Your task to perform on an android device: empty trash in the gmail app Image 0: 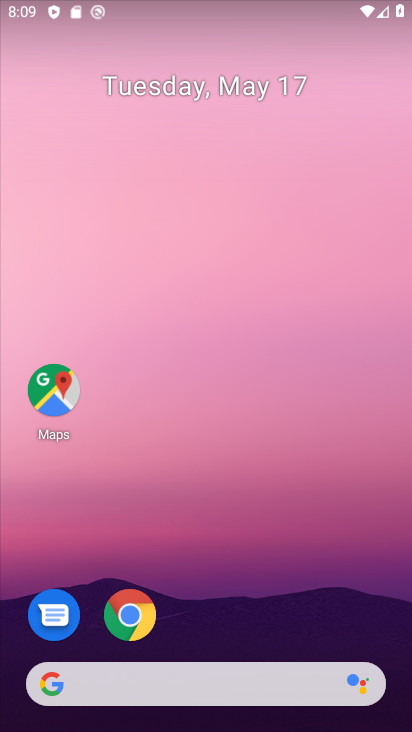
Step 0: drag from (389, 636) to (312, 16)
Your task to perform on an android device: empty trash in the gmail app Image 1: 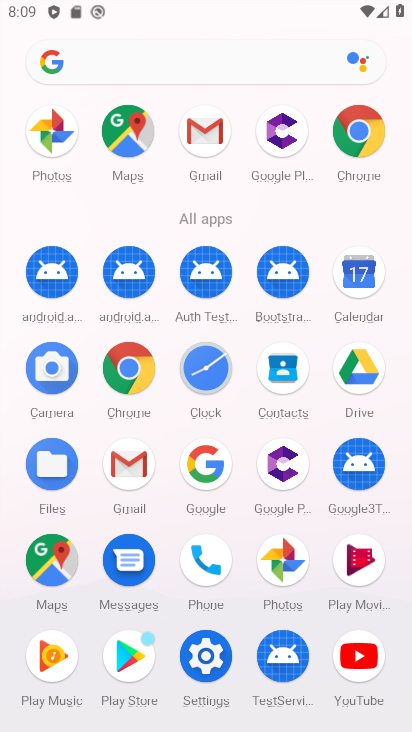
Step 1: click (129, 465)
Your task to perform on an android device: empty trash in the gmail app Image 2: 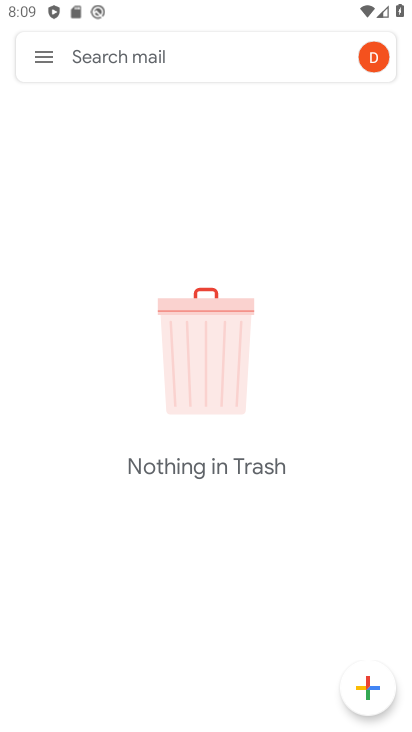
Step 2: click (40, 50)
Your task to perform on an android device: empty trash in the gmail app Image 3: 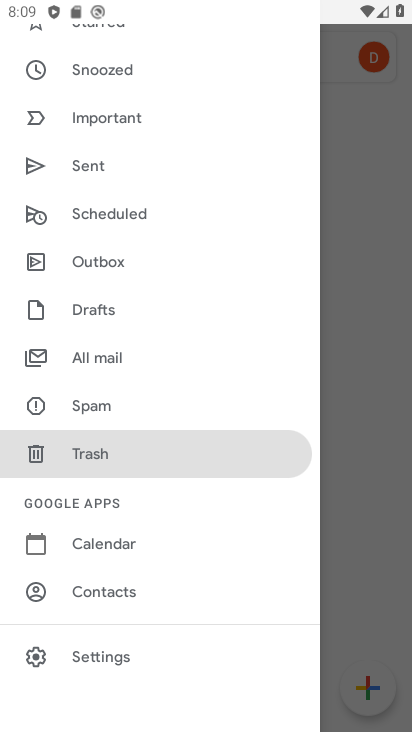
Step 3: click (104, 454)
Your task to perform on an android device: empty trash in the gmail app Image 4: 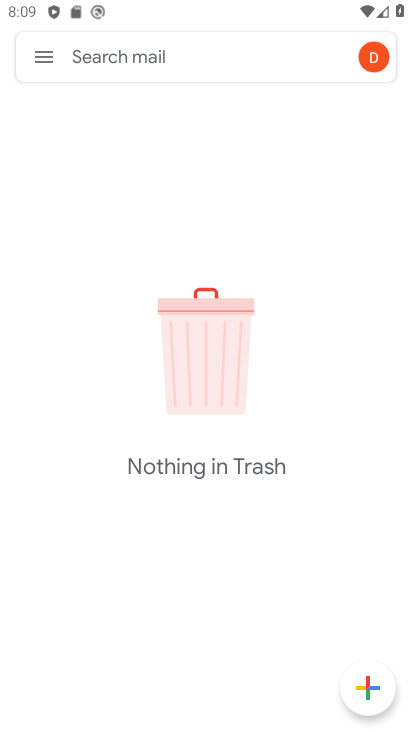
Step 4: task complete